Your task to perform on an android device: delete a single message in the gmail app Image 0: 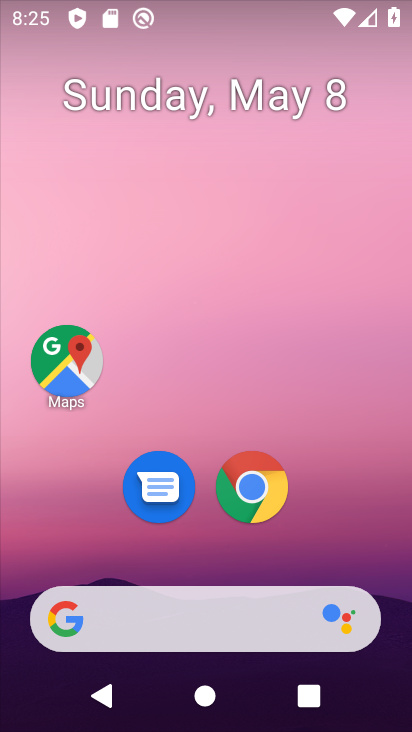
Step 0: drag from (214, 560) to (219, 213)
Your task to perform on an android device: delete a single message in the gmail app Image 1: 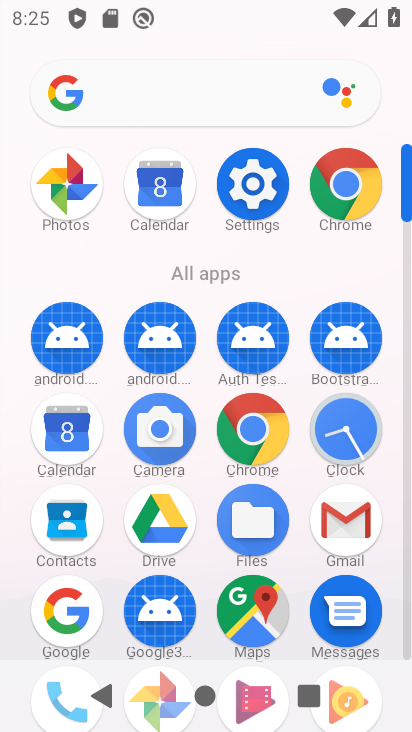
Step 1: click (347, 502)
Your task to perform on an android device: delete a single message in the gmail app Image 2: 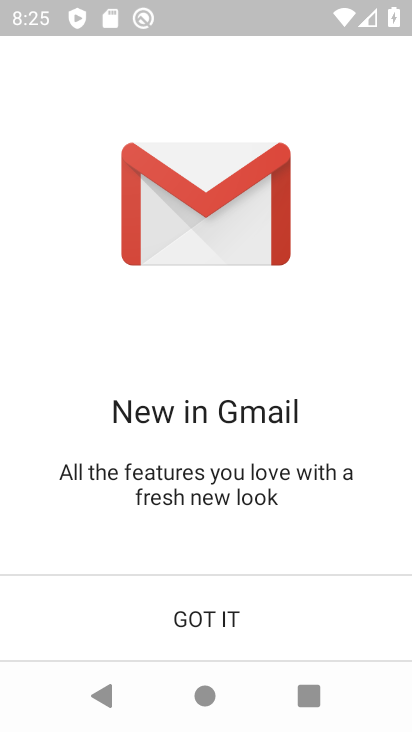
Step 2: click (245, 628)
Your task to perform on an android device: delete a single message in the gmail app Image 3: 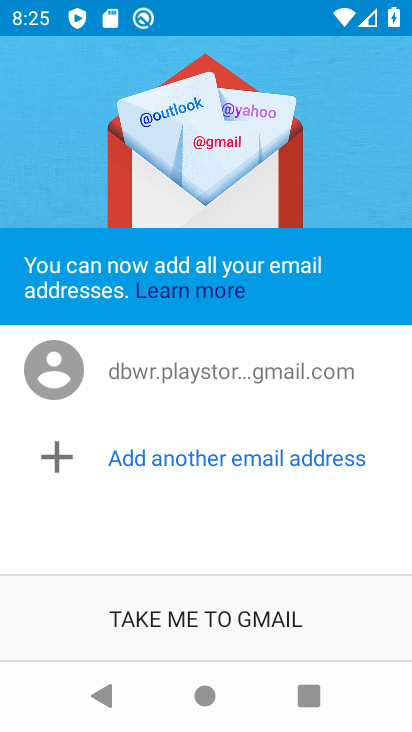
Step 3: click (245, 628)
Your task to perform on an android device: delete a single message in the gmail app Image 4: 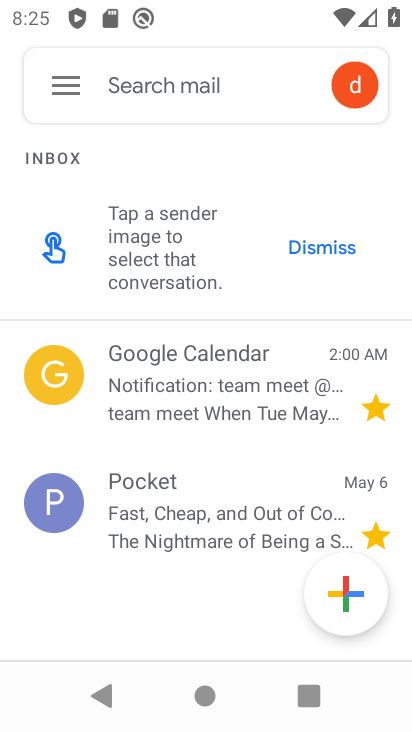
Step 4: click (67, 74)
Your task to perform on an android device: delete a single message in the gmail app Image 5: 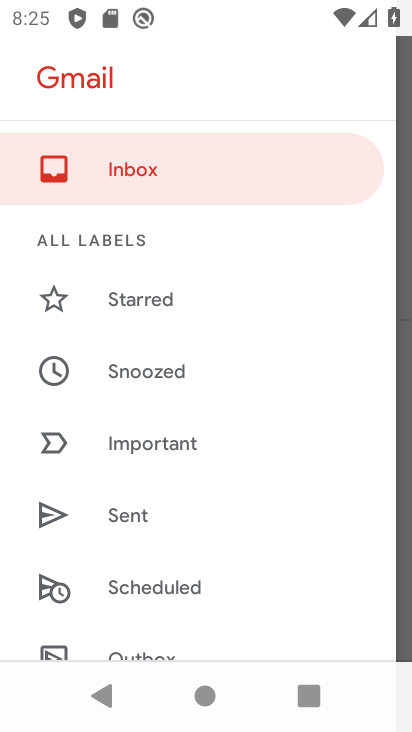
Step 5: click (349, 171)
Your task to perform on an android device: delete a single message in the gmail app Image 6: 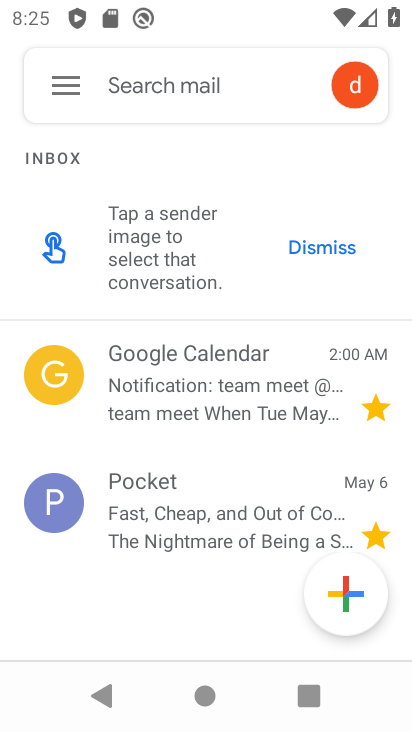
Step 6: click (163, 375)
Your task to perform on an android device: delete a single message in the gmail app Image 7: 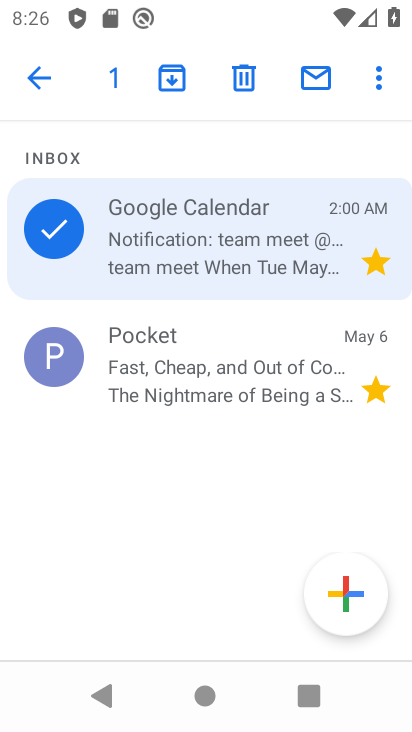
Step 7: click (232, 62)
Your task to perform on an android device: delete a single message in the gmail app Image 8: 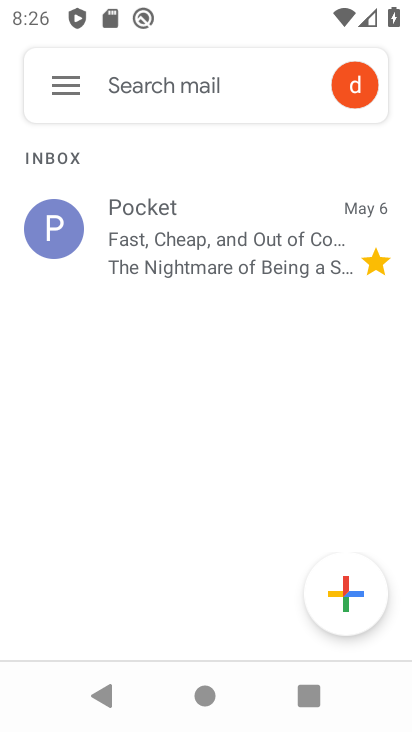
Step 8: task complete